Your task to perform on an android device: Show the shopping cart on target. Search for "macbook" on target, select the first entry, and add it to the cart. Image 0: 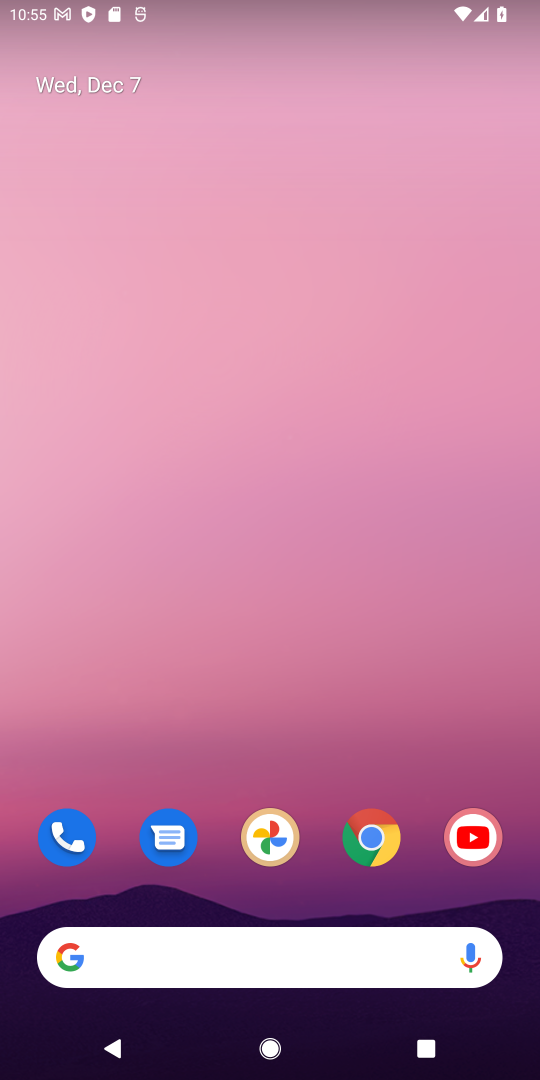
Step 0: click (369, 822)
Your task to perform on an android device: Show the shopping cart on target. Search for "macbook" on target, select the first entry, and add it to the cart. Image 1: 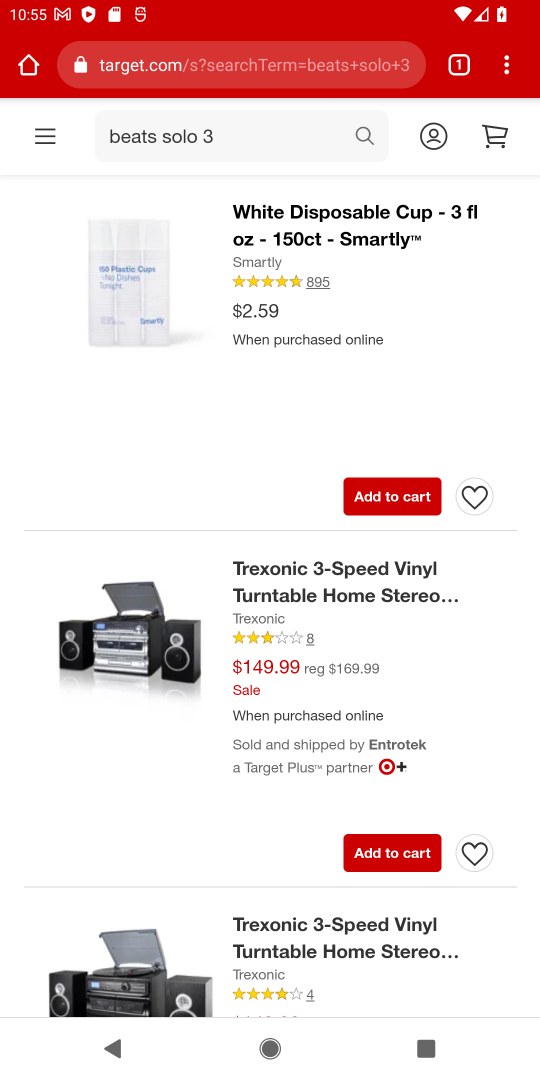
Step 1: click (339, 64)
Your task to perform on an android device: Show the shopping cart on target. Search for "macbook" on target, select the first entry, and add it to the cart. Image 2: 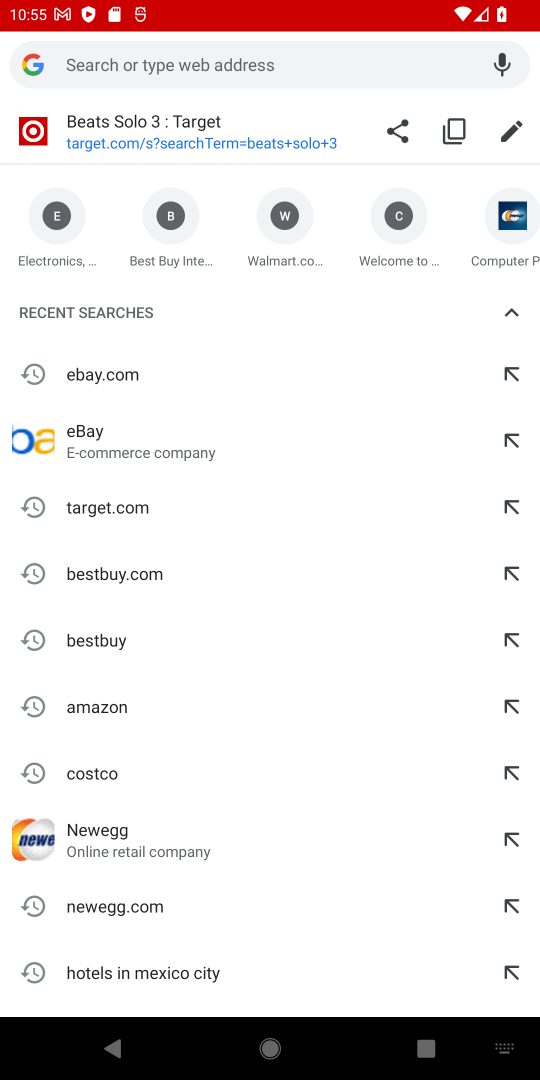
Step 2: click (132, 510)
Your task to perform on an android device: Show the shopping cart on target. Search for "macbook" on target, select the first entry, and add it to the cart. Image 3: 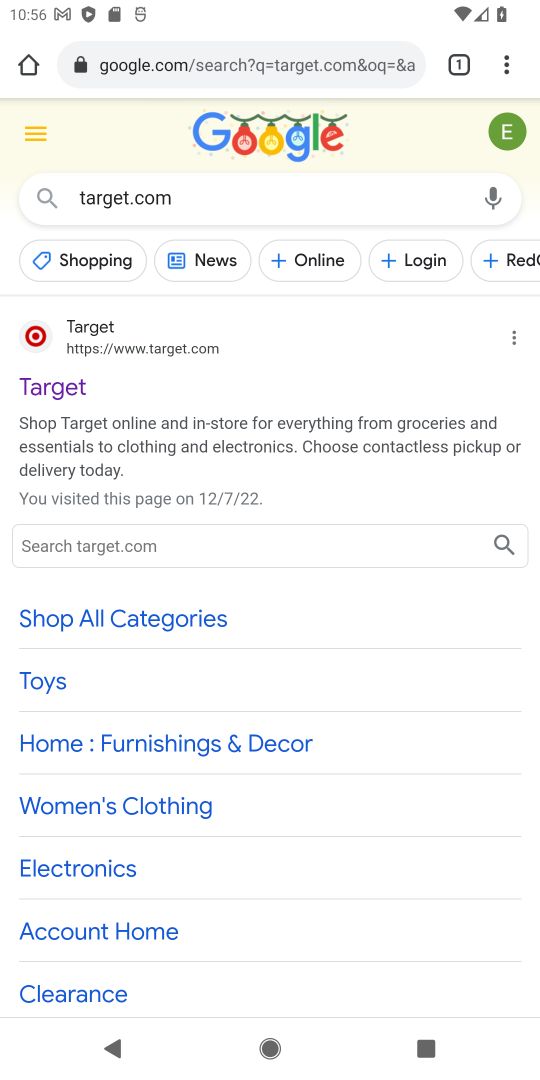
Step 3: click (116, 349)
Your task to perform on an android device: Show the shopping cart on target. Search for "macbook" on target, select the first entry, and add it to the cart. Image 4: 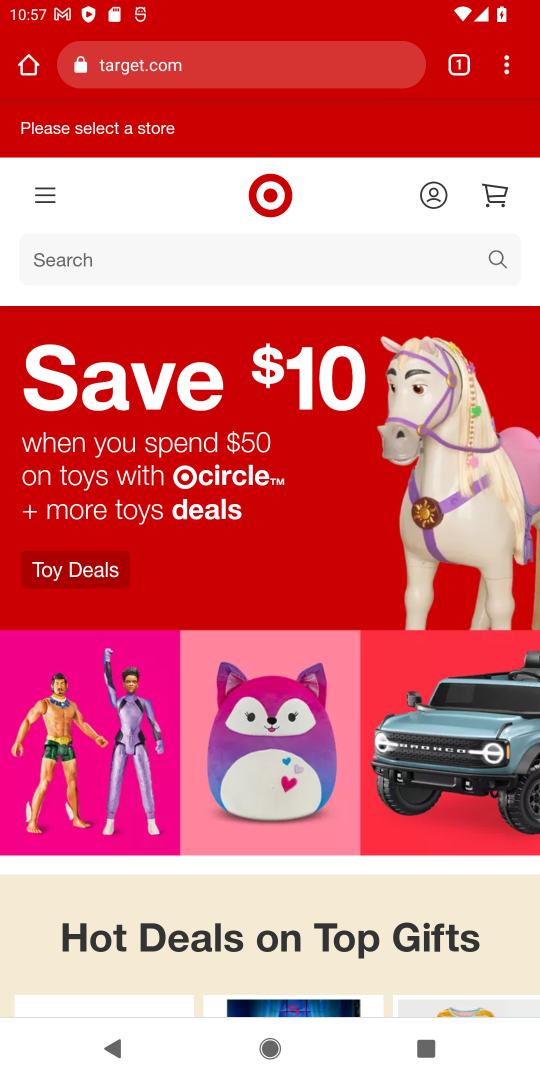
Step 4: click (503, 257)
Your task to perform on an android device: Show the shopping cart on target. Search for "macbook" on target, select the first entry, and add it to the cart. Image 5: 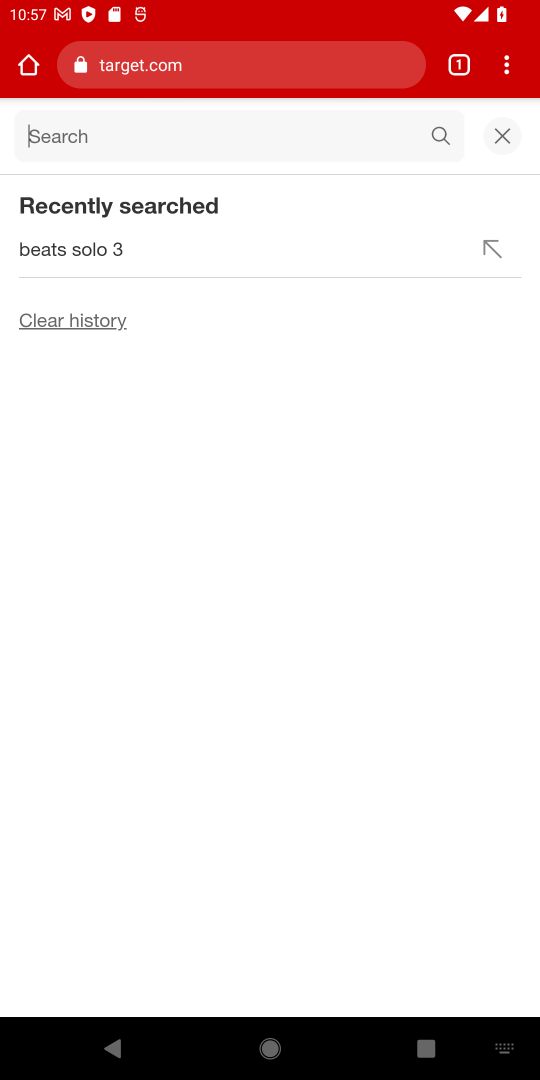
Step 5: type "macbook"
Your task to perform on an android device: Show the shopping cart on target. Search for "macbook" on target, select the first entry, and add it to the cart. Image 6: 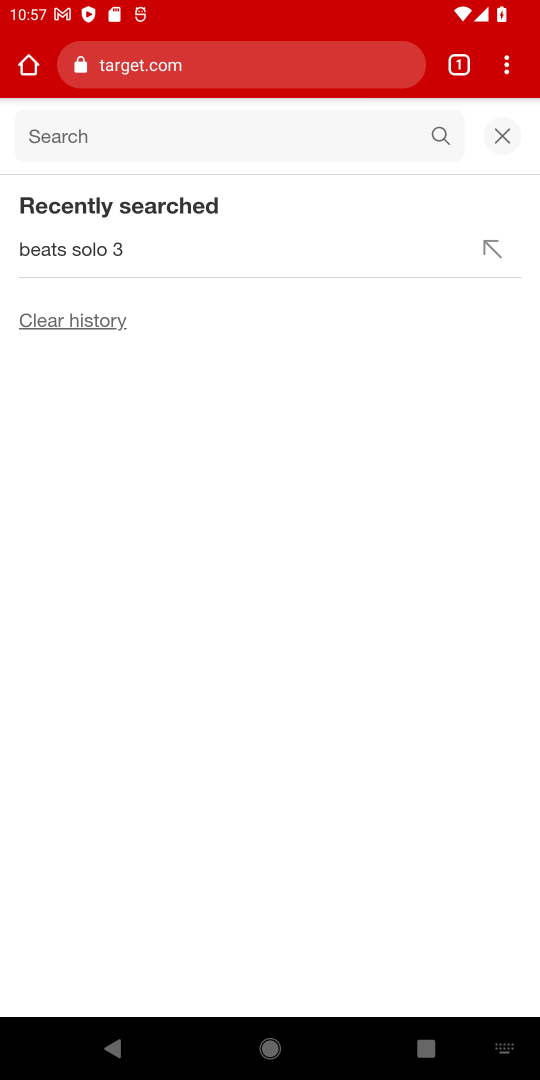
Step 6: press enter
Your task to perform on an android device: Show the shopping cart on target. Search for "macbook" on target, select the first entry, and add it to the cart. Image 7: 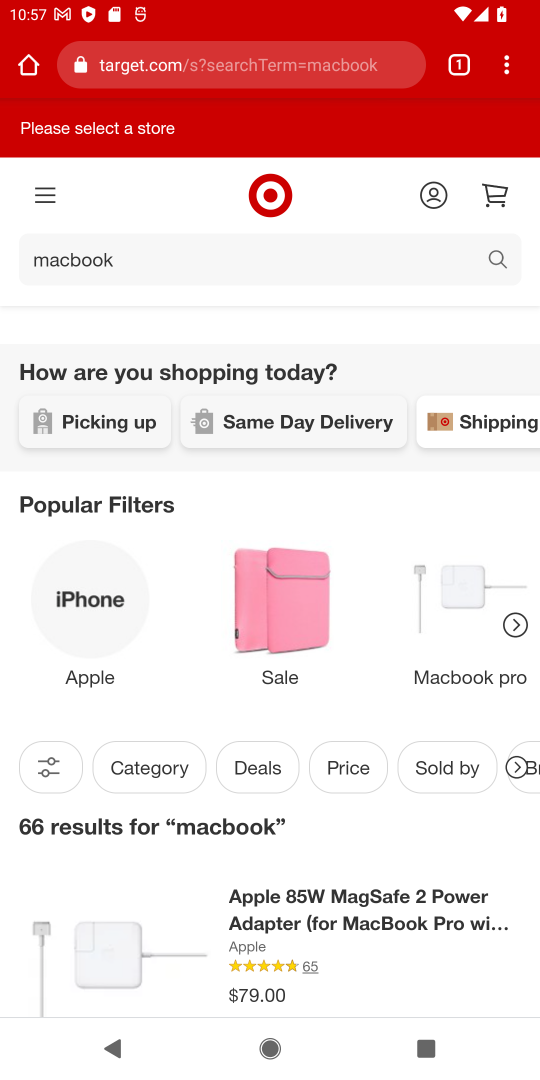
Step 7: task complete